Your task to perform on an android device: toggle notifications settings in the gmail app Image 0: 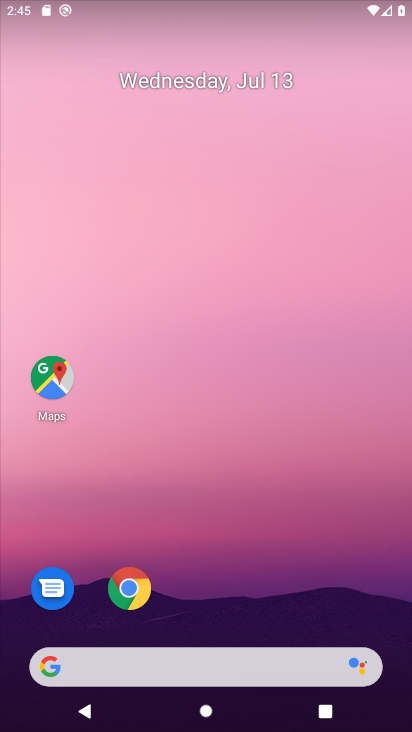
Step 0: drag from (236, 612) to (223, 185)
Your task to perform on an android device: toggle notifications settings in the gmail app Image 1: 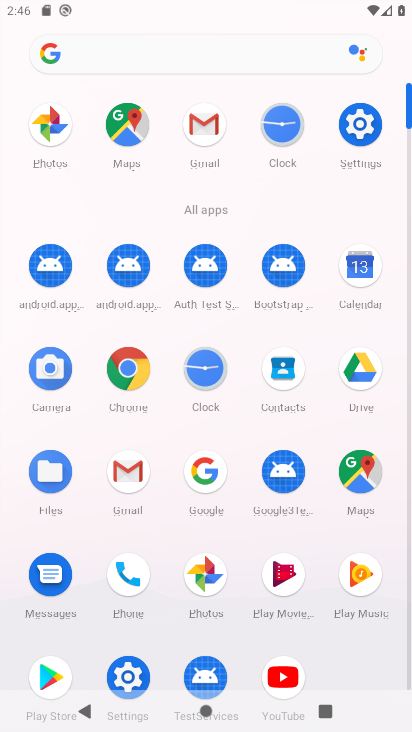
Step 1: click (133, 481)
Your task to perform on an android device: toggle notifications settings in the gmail app Image 2: 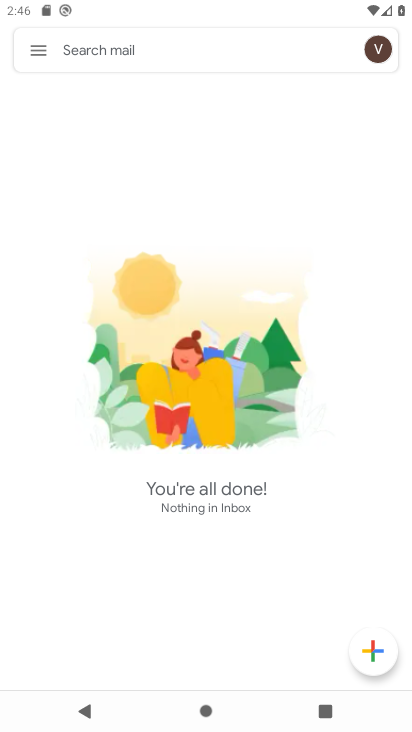
Step 2: drag from (32, 45) to (49, 415)
Your task to perform on an android device: toggle notifications settings in the gmail app Image 3: 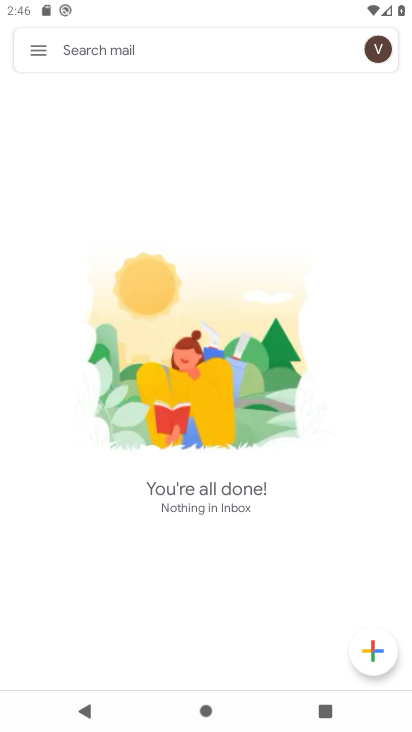
Step 3: click (48, 64)
Your task to perform on an android device: toggle notifications settings in the gmail app Image 4: 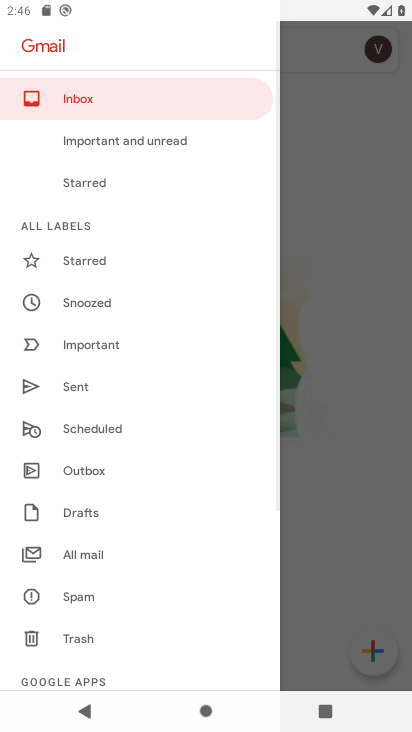
Step 4: drag from (60, 498) to (73, 63)
Your task to perform on an android device: toggle notifications settings in the gmail app Image 5: 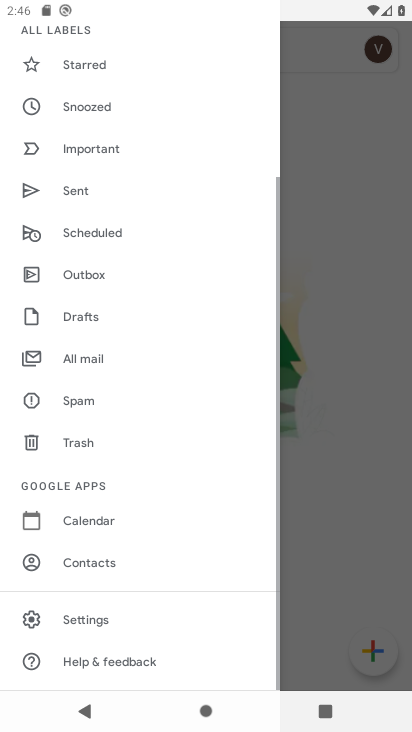
Step 5: click (82, 609)
Your task to perform on an android device: toggle notifications settings in the gmail app Image 6: 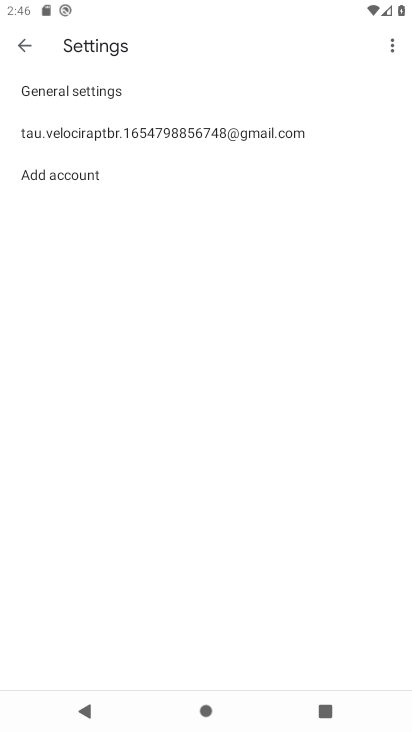
Step 6: click (98, 99)
Your task to perform on an android device: toggle notifications settings in the gmail app Image 7: 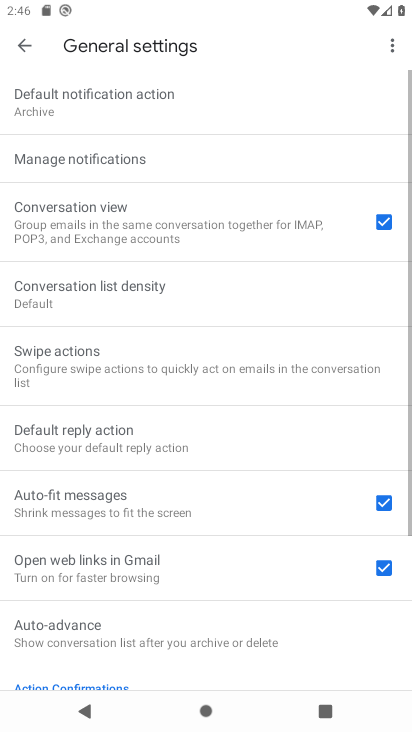
Step 7: click (122, 151)
Your task to perform on an android device: toggle notifications settings in the gmail app Image 8: 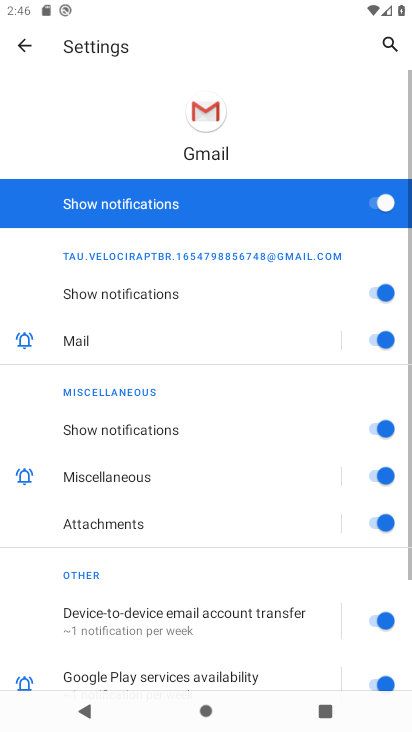
Step 8: click (386, 210)
Your task to perform on an android device: toggle notifications settings in the gmail app Image 9: 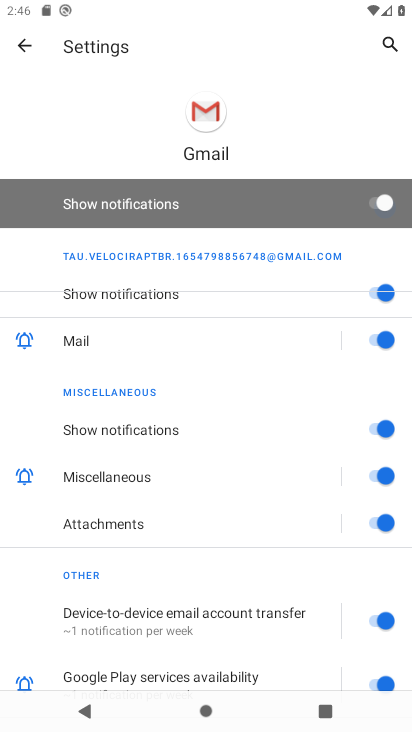
Step 9: task complete